Your task to perform on an android device: open app "Adobe Acrobat Reader" Image 0: 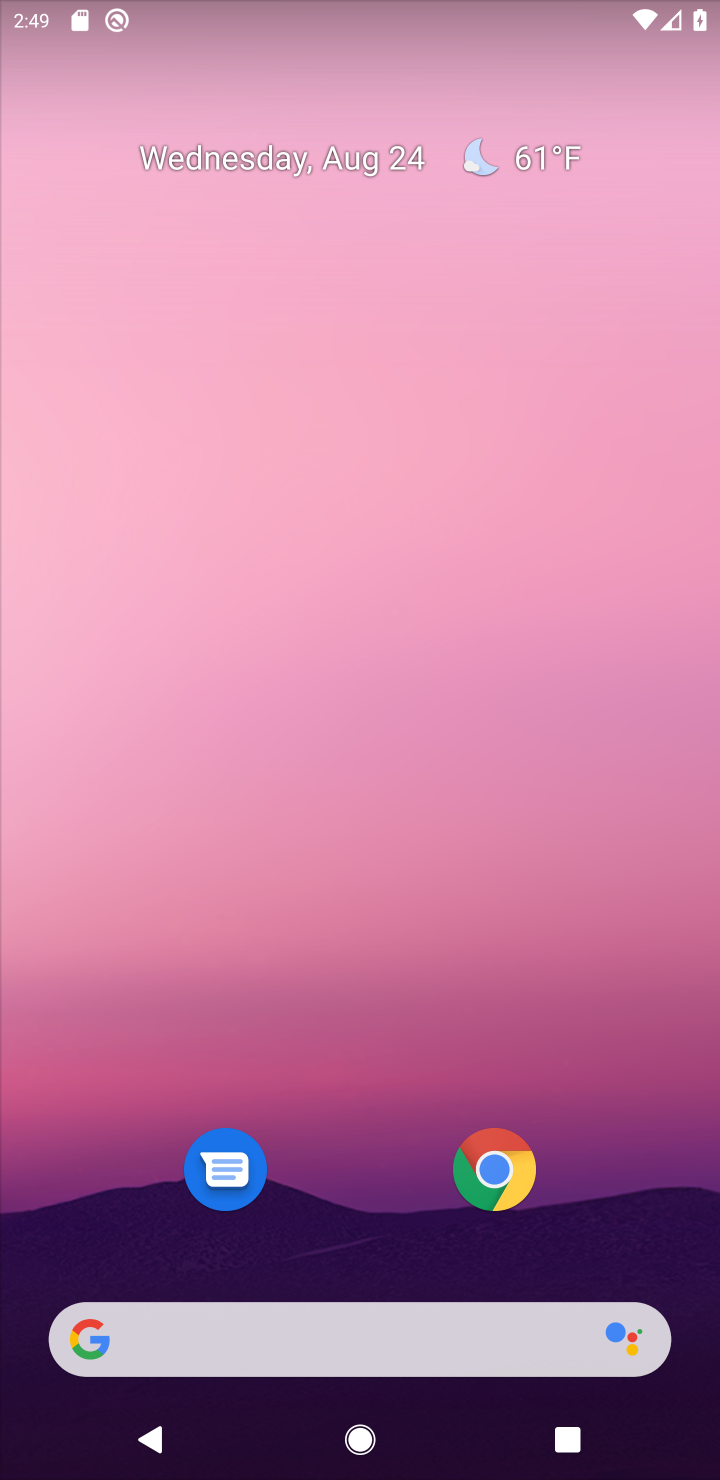
Step 0: drag from (345, 1236) to (327, 4)
Your task to perform on an android device: open app "Adobe Acrobat Reader" Image 1: 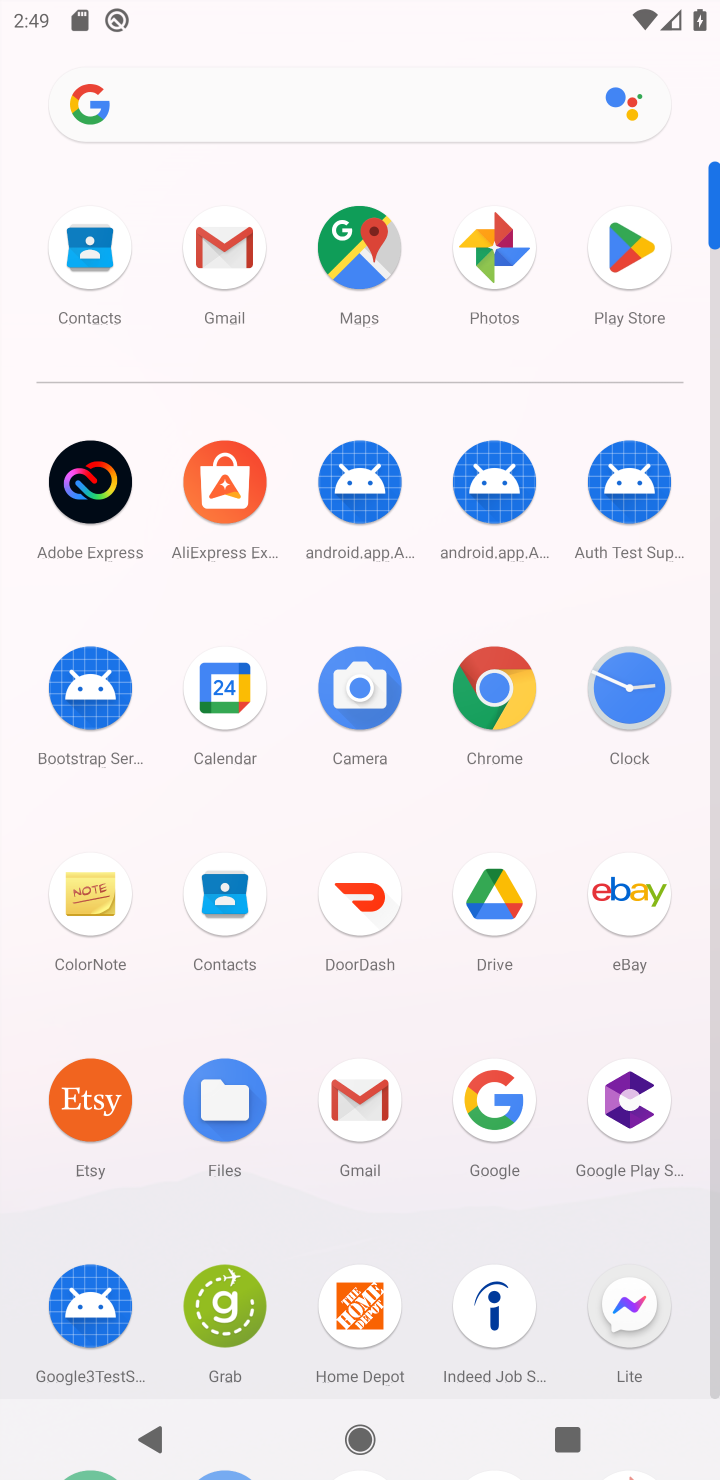
Step 1: click (610, 280)
Your task to perform on an android device: open app "Adobe Acrobat Reader" Image 2: 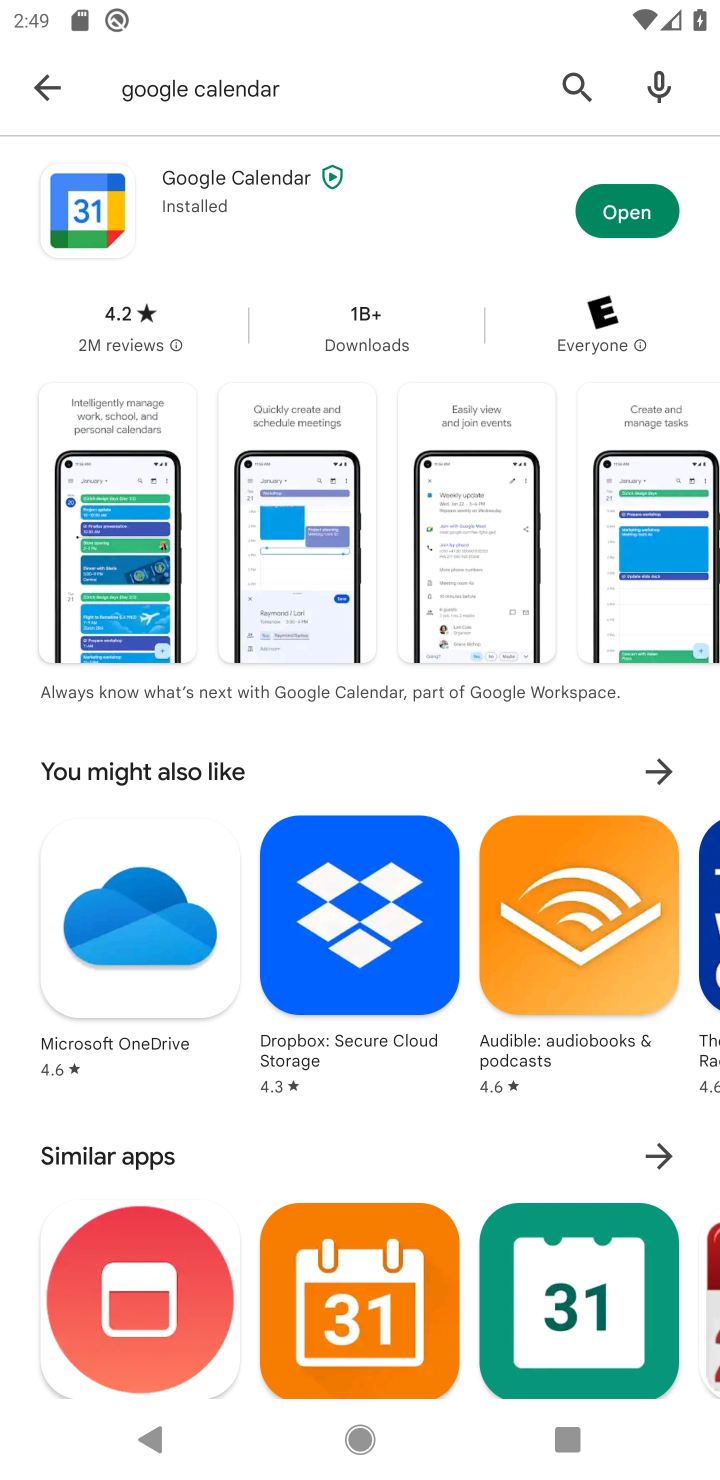
Step 2: click (50, 81)
Your task to perform on an android device: open app "Adobe Acrobat Reader" Image 3: 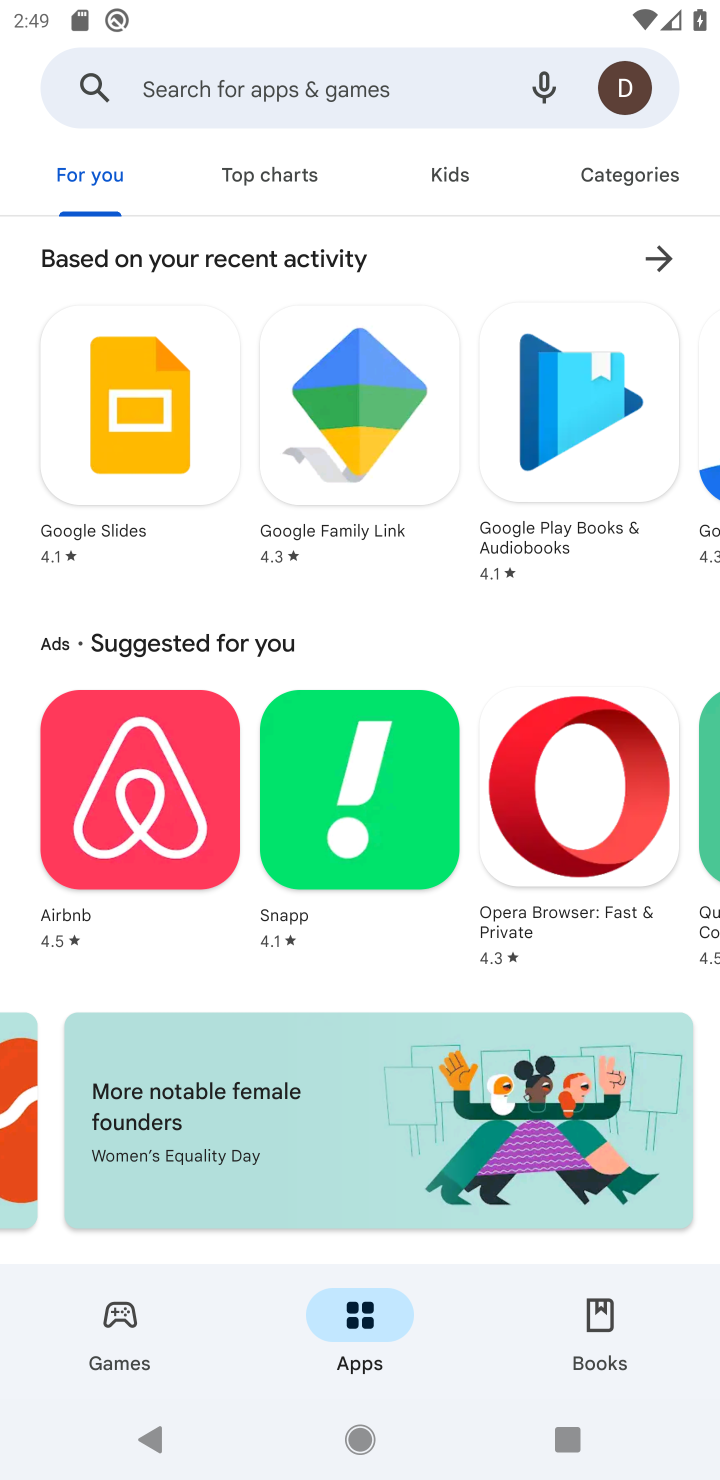
Step 3: click (135, 75)
Your task to perform on an android device: open app "Adobe Acrobat Reader" Image 4: 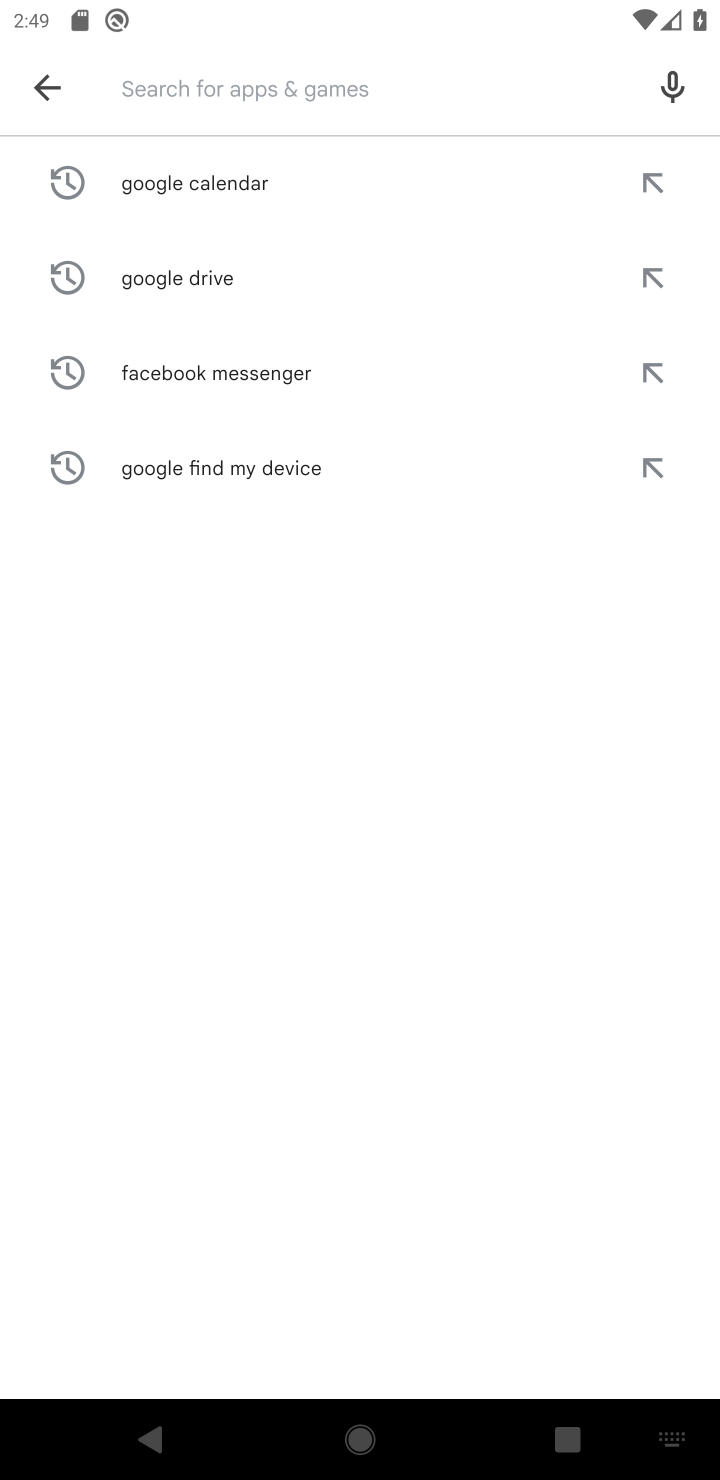
Step 4: click (309, 1410)
Your task to perform on an android device: open app "Adobe Acrobat Reader" Image 5: 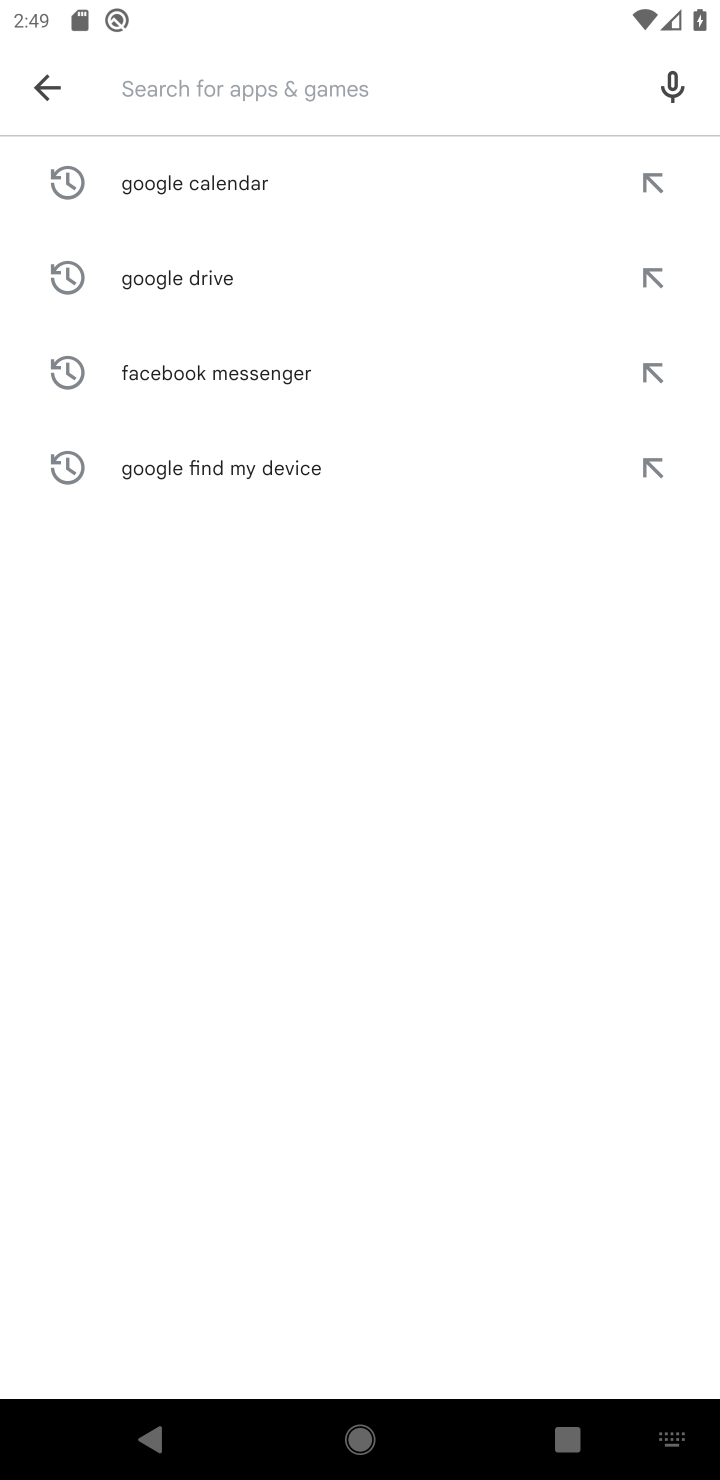
Step 5: type "Adobe Acrobat Reader"
Your task to perform on an android device: open app "Adobe Acrobat Reader" Image 6: 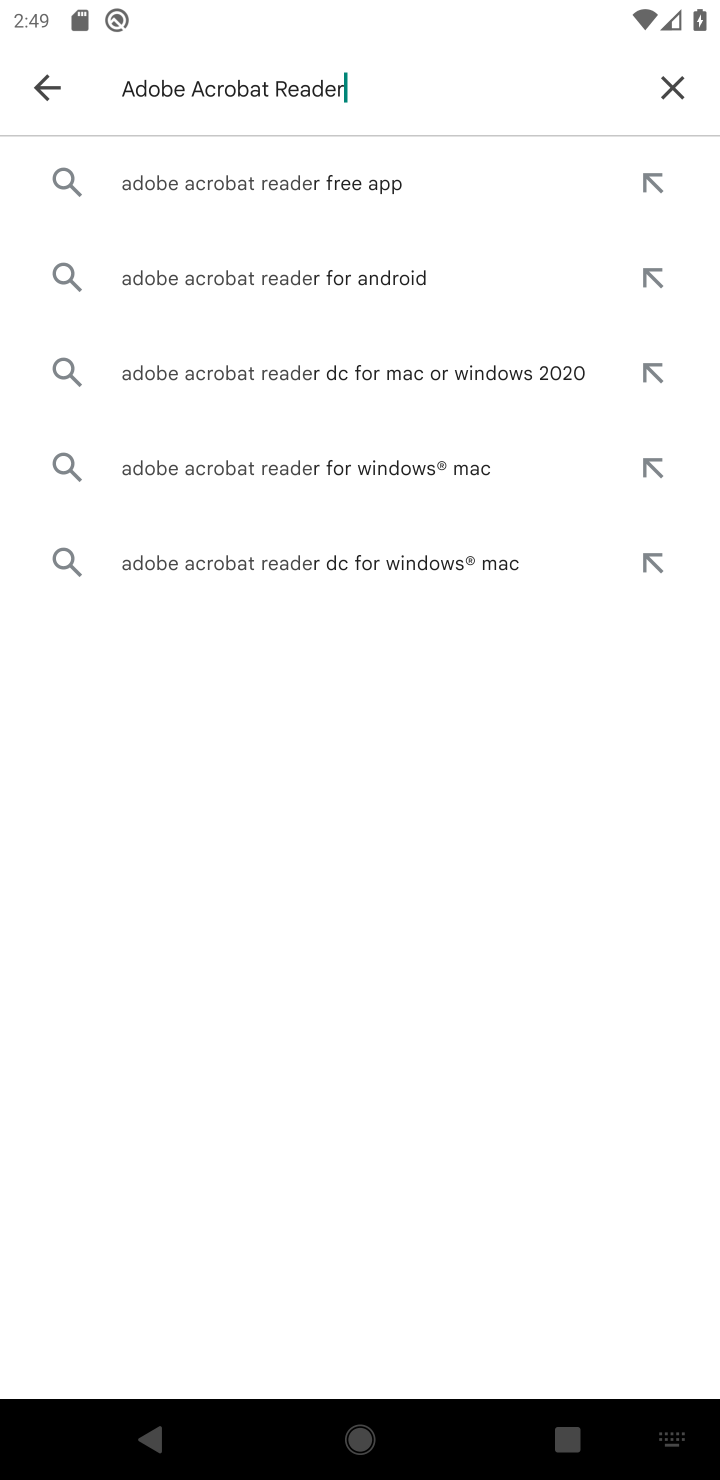
Step 6: drag from (309, 1410) to (714, 317)
Your task to perform on an android device: open app "Adobe Acrobat Reader" Image 7: 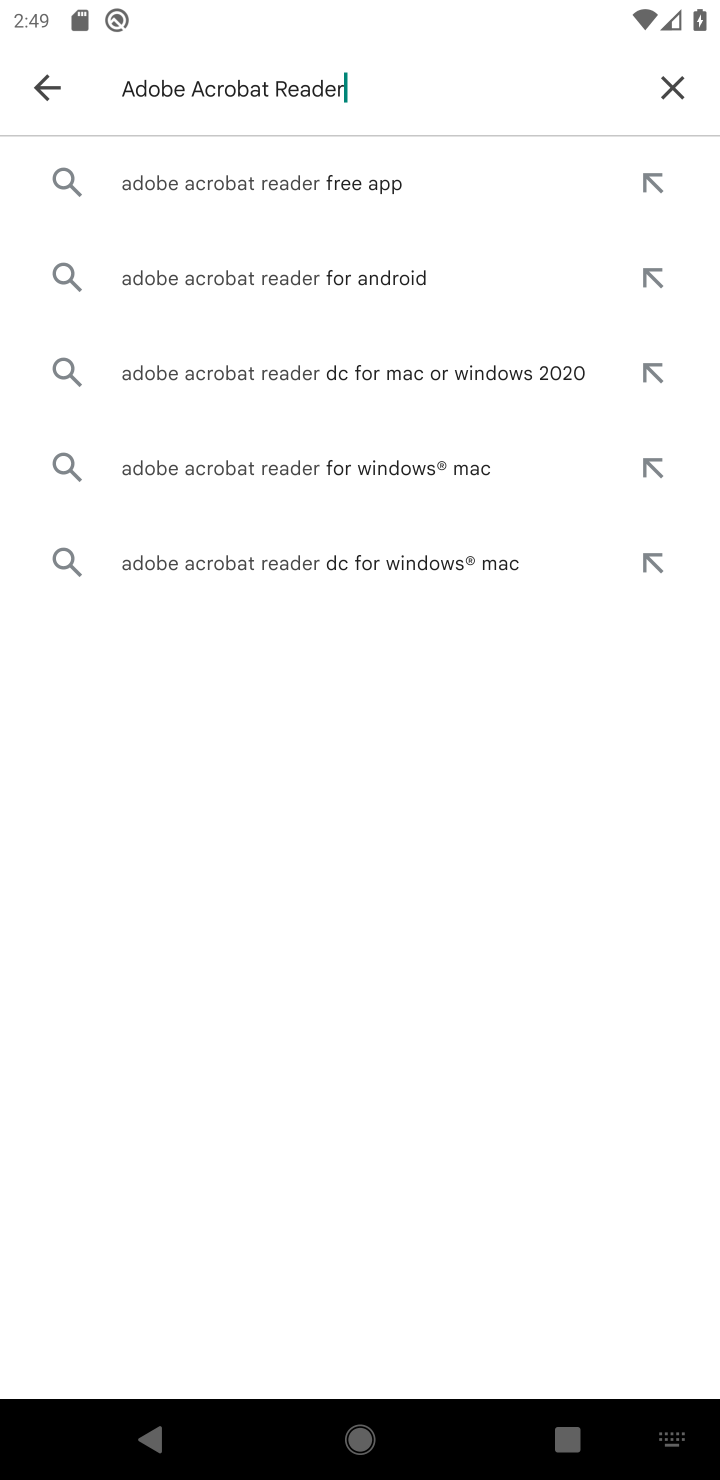
Step 7: click (373, 182)
Your task to perform on an android device: open app "Adobe Acrobat Reader" Image 8: 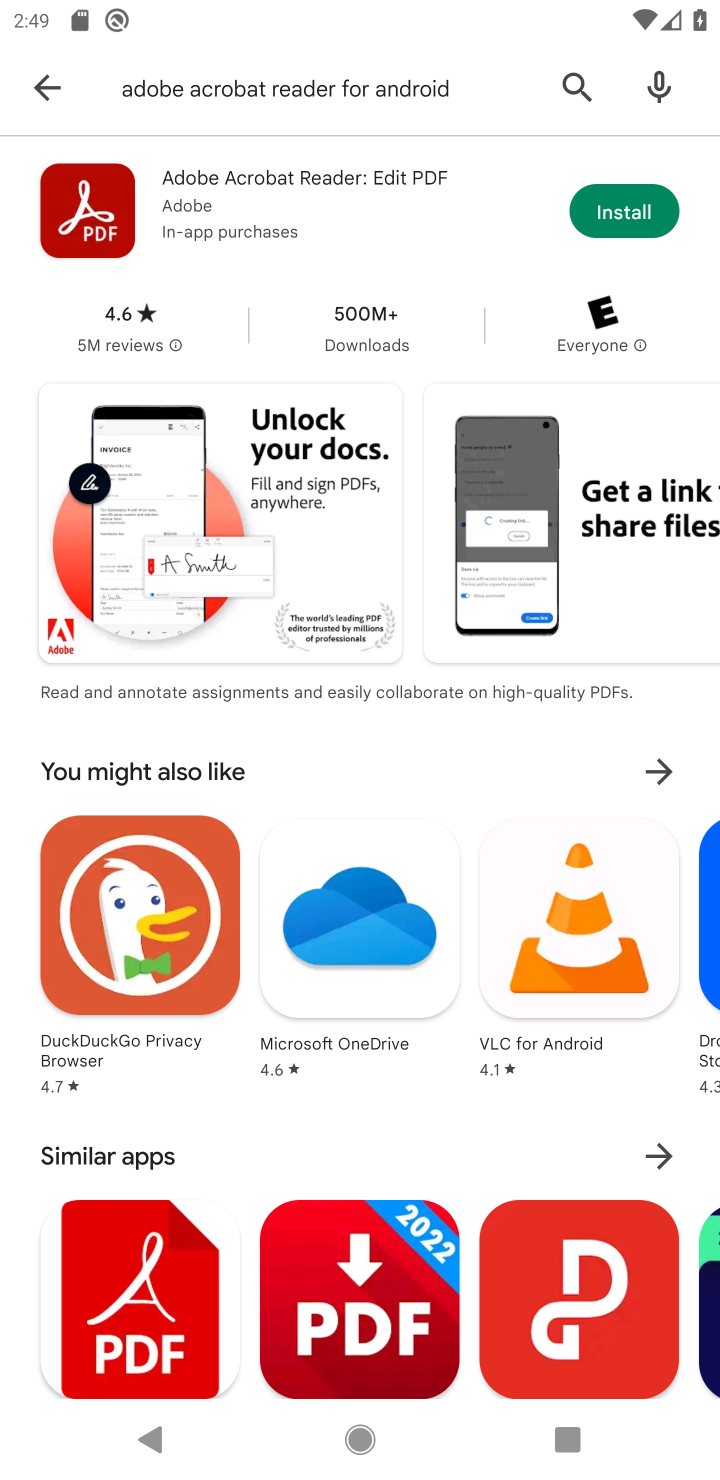
Step 8: task complete